Your task to perform on an android device: Open the stopwatch Image 0: 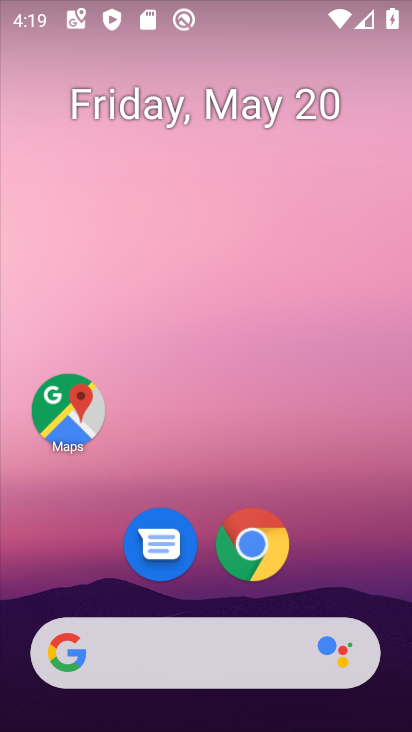
Step 0: drag from (341, 537) to (359, 0)
Your task to perform on an android device: Open the stopwatch Image 1: 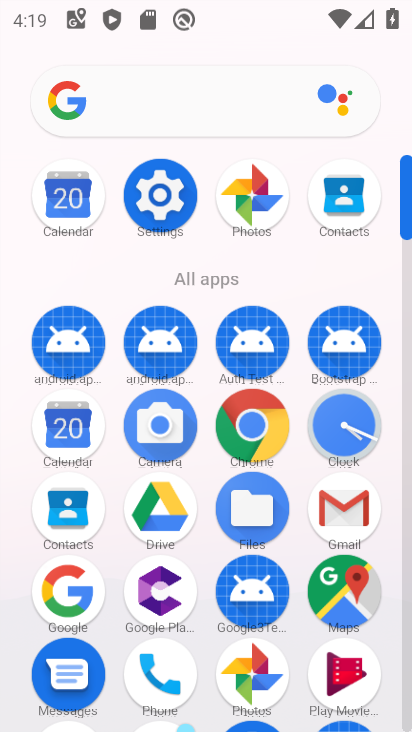
Step 1: click (328, 429)
Your task to perform on an android device: Open the stopwatch Image 2: 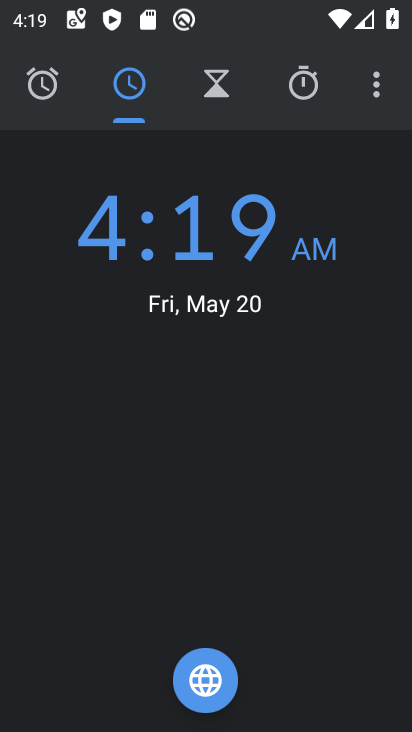
Step 2: click (313, 82)
Your task to perform on an android device: Open the stopwatch Image 3: 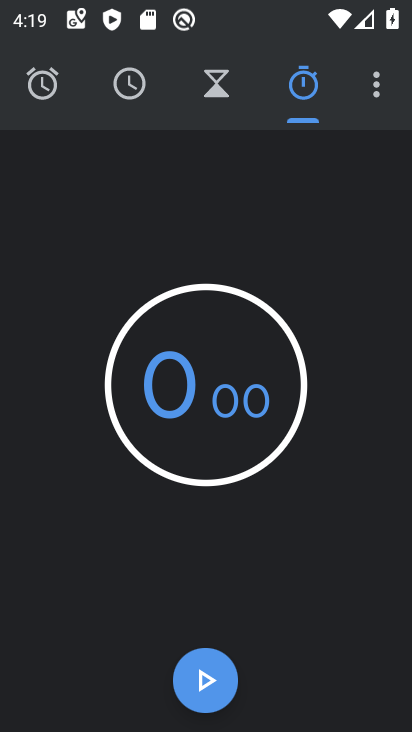
Step 3: task complete